Your task to perform on an android device: turn off location Image 0: 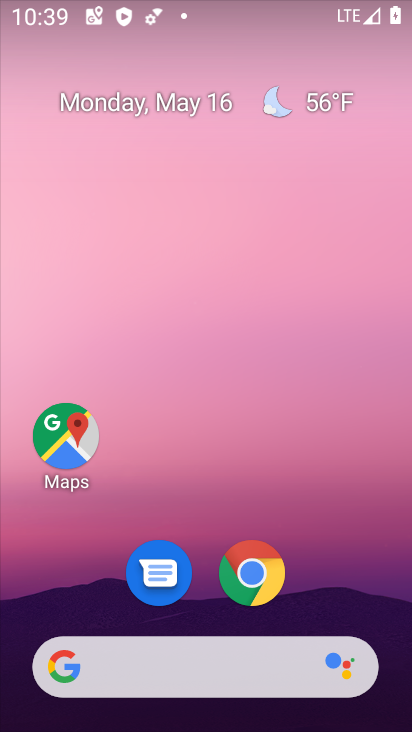
Step 0: drag from (216, 533) to (235, 16)
Your task to perform on an android device: turn off location Image 1: 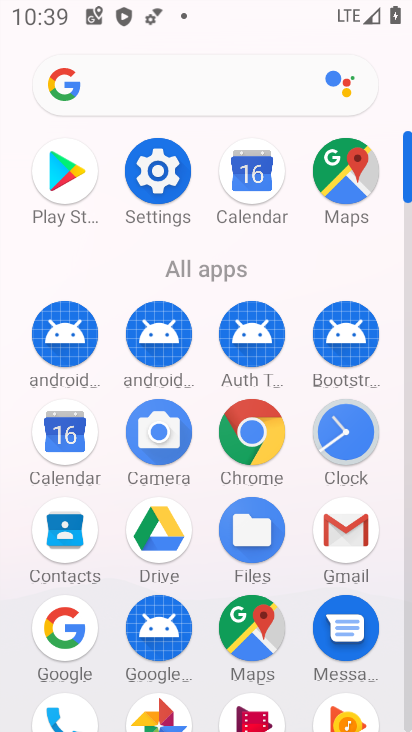
Step 1: click (161, 173)
Your task to perform on an android device: turn off location Image 2: 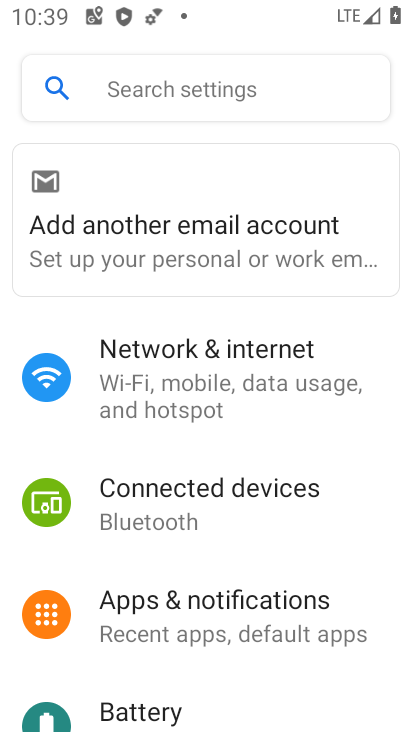
Step 2: drag from (207, 658) to (310, 75)
Your task to perform on an android device: turn off location Image 3: 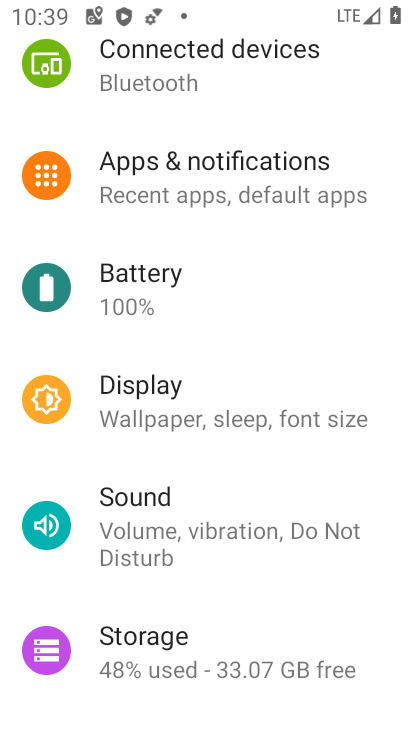
Step 3: drag from (227, 561) to (309, 6)
Your task to perform on an android device: turn off location Image 4: 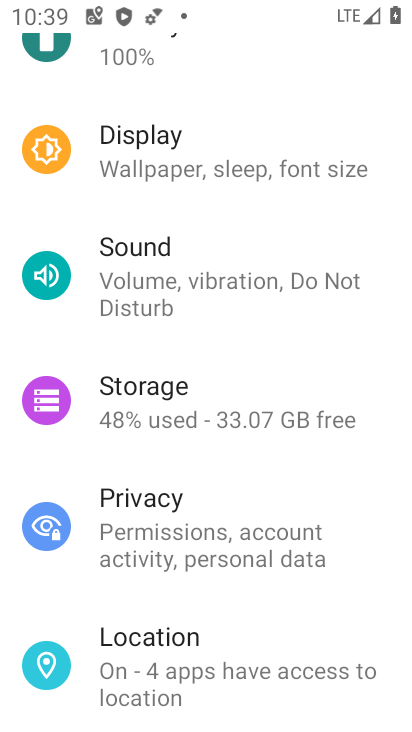
Step 4: click (183, 660)
Your task to perform on an android device: turn off location Image 5: 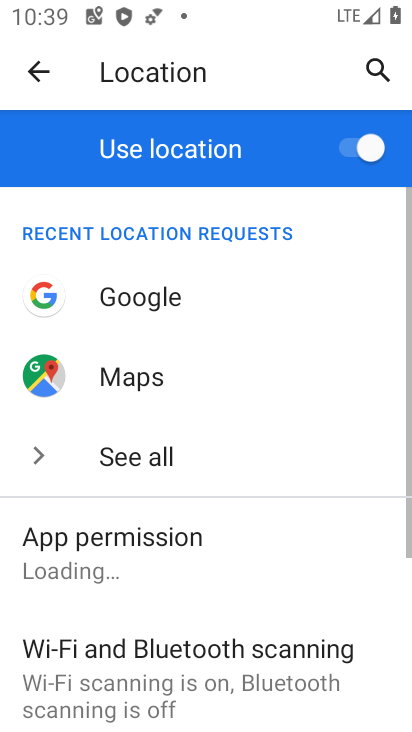
Step 5: click (375, 157)
Your task to perform on an android device: turn off location Image 6: 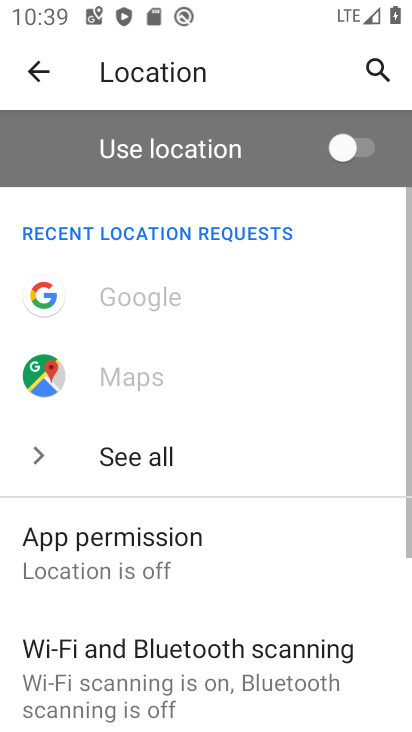
Step 6: task complete